Your task to perform on an android device: turn off location history Image 0: 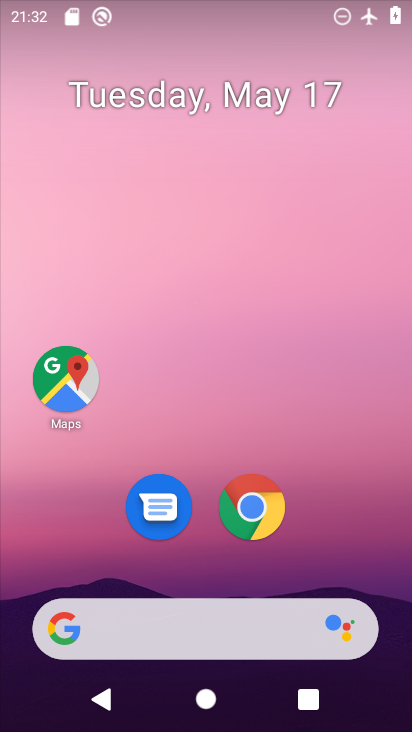
Step 0: click (75, 383)
Your task to perform on an android device: turn off location history Image 1: 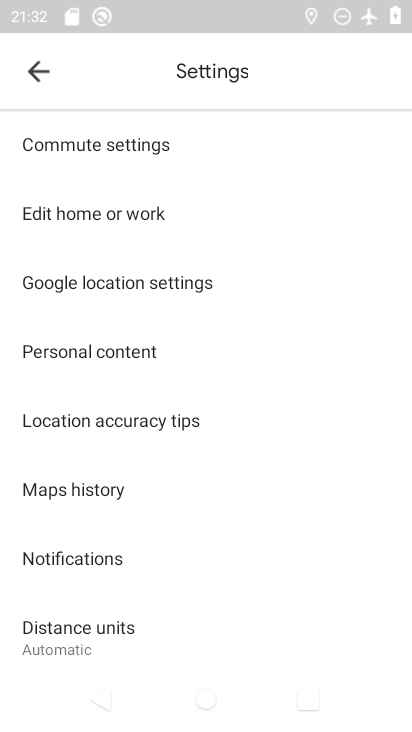
Step 1: click (38, 72)
Your task to perform on an android device: turn off location history Image 2: 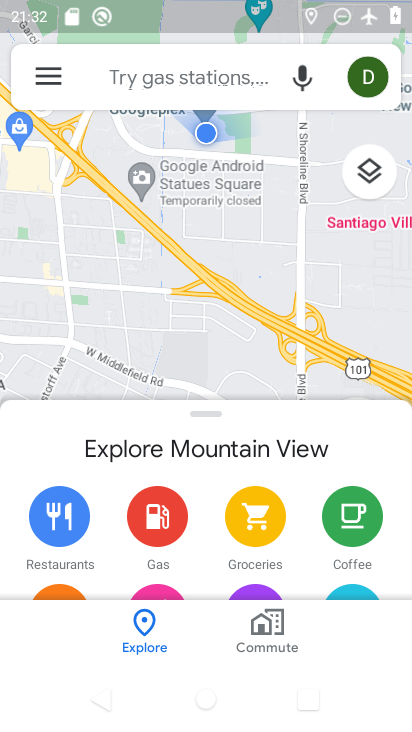
Step 2: click (39, 79)
Your task to perform on an android device: turn off location history Image 3: 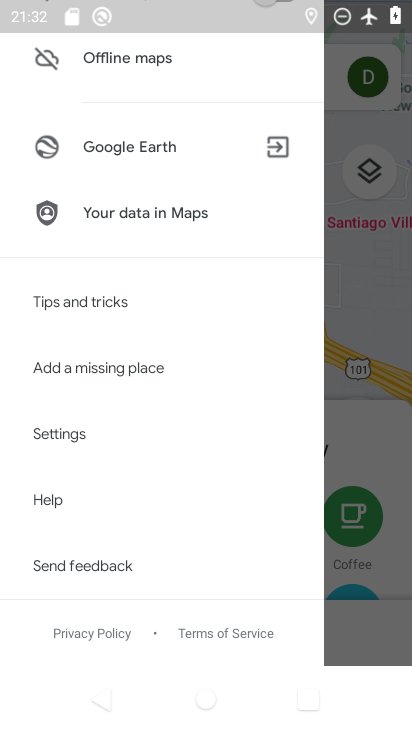
Step 3: drag from (110, 152) to (121, 636)
Your task to perform on an android device: turn off location history Image 4: 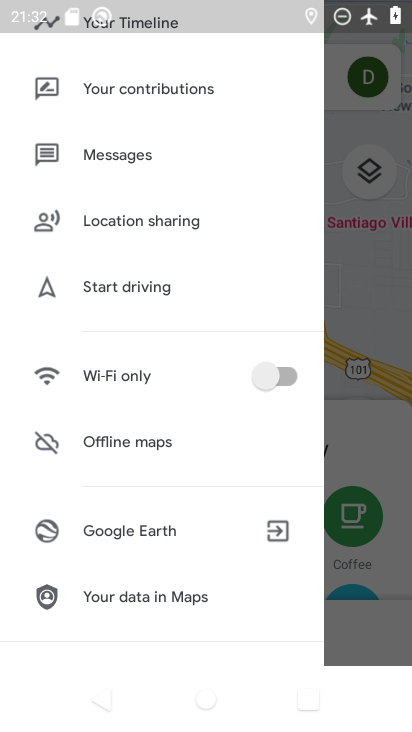
Step 4: drag from (121, 179) to (108, 602)
Your task to perform on an android device: turn off location history Image 5: 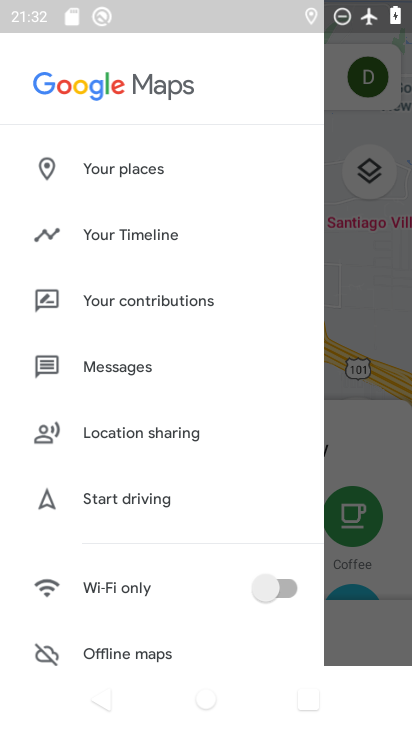
Step 5: click (102, 235)
Your task to perform on an android device: turn off location history Image 6: 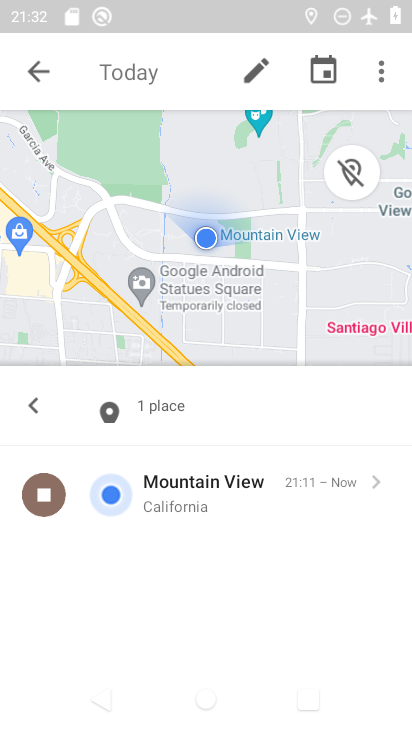
Step 6: click (382, 73)
Your task to perform on an android device: turn off location history Image 7: 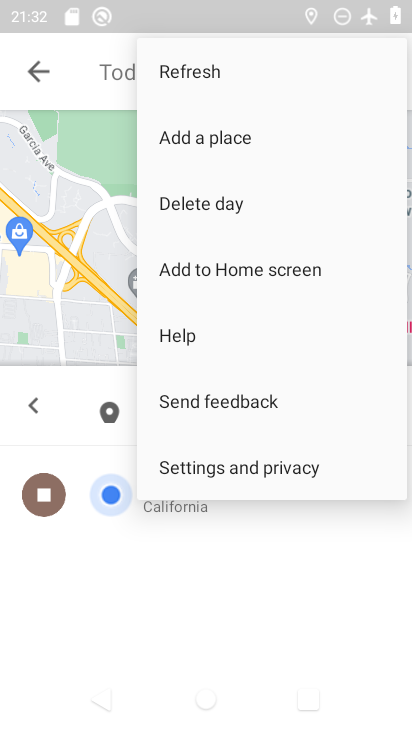
Step 7: click (190, 468)
Your task to perform on an android device: turn off location history Image 8: 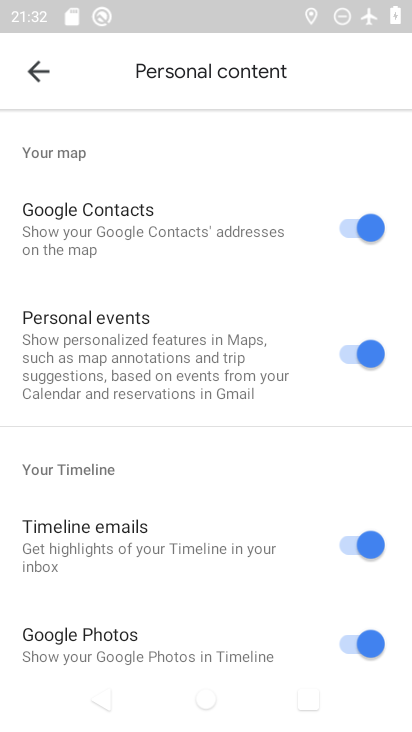
Step 8: drag from (187, 569) to (202, 118)
Your task to perform on an android device: turn off location history Image 9: 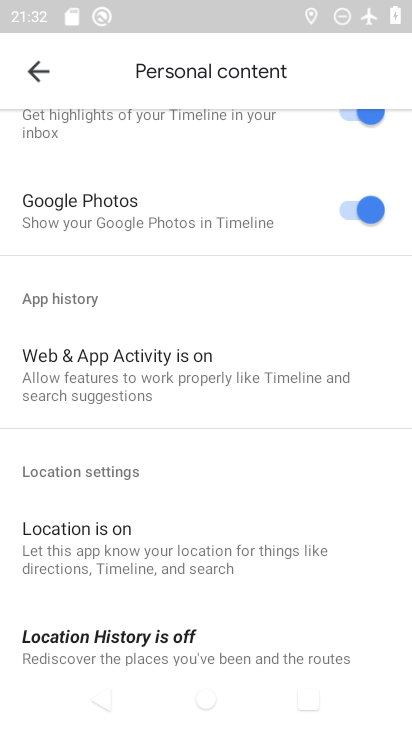
Step 9: drag from (155, 517) to (174, 278)
Your task to perform on an android device: turn off location history Image 10: 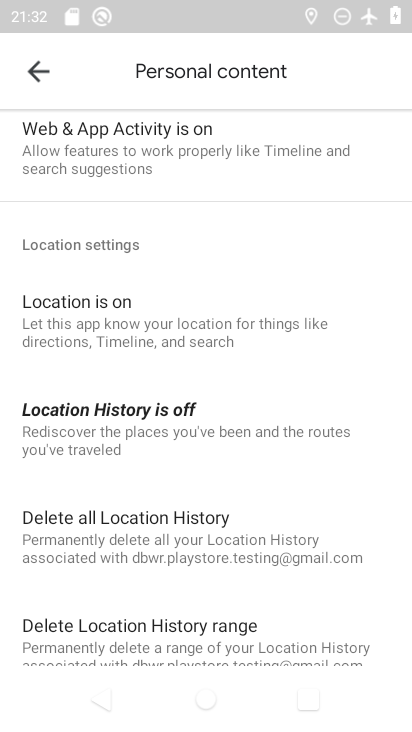
Step 10: click (144, 420)
Your task to perform on an android device: turn off location history Image 11: 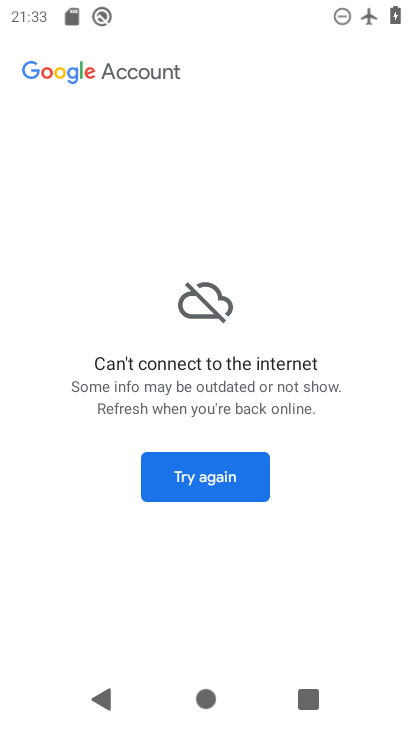
Step 11: task complete